Your task to perform on an android device: Show me popular videos on Youtube Image 0: 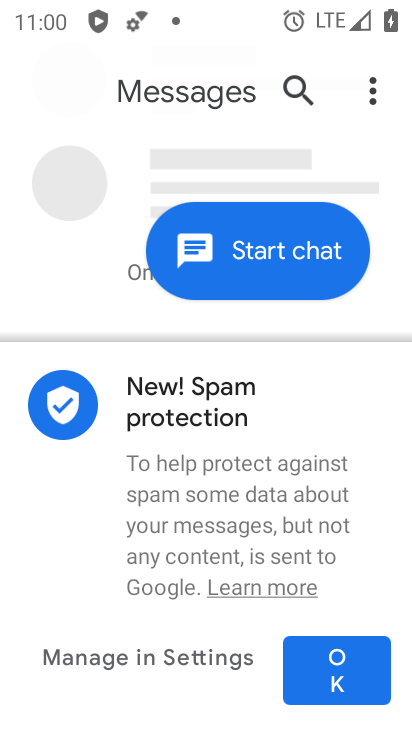
Step 0: press back button
Your task to perform on an android device: Show me popular videos on Youtube Image 1: 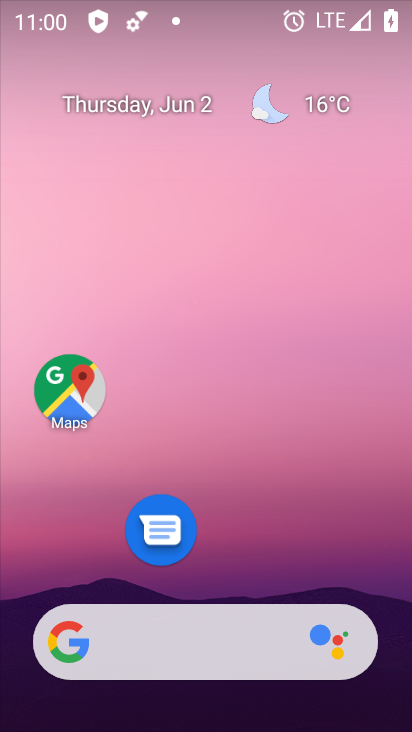
Step 1: drag from (253, 699) to (138, 40)
Your task to perform on an android device: Show me popular videos on Youtube Image 2: 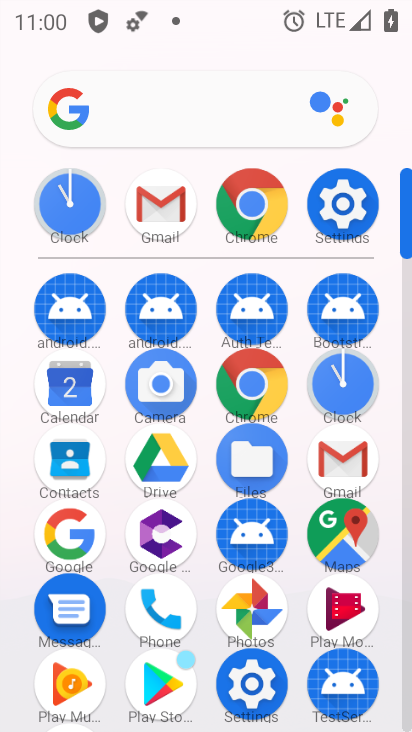
Step 2: drag from (282, 640) to (268, 284)
Your task to perform on an android device: Show me popular videos on Youtube Image 3: 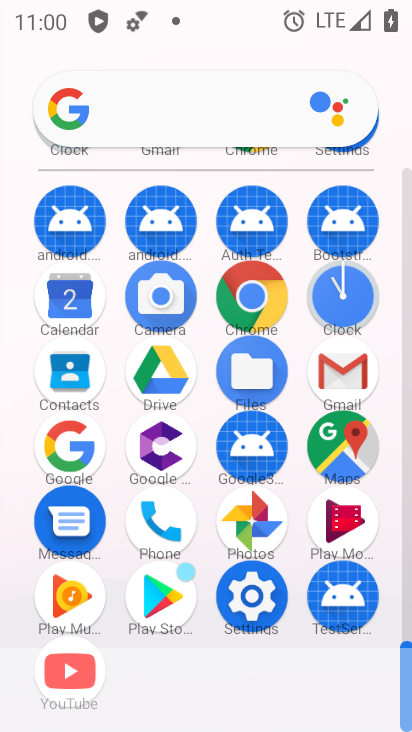
Step 3: drag from (287, 519) to (287, 202)
Your task to perform on an android device: Show me popular videos on Youtube Image 4: 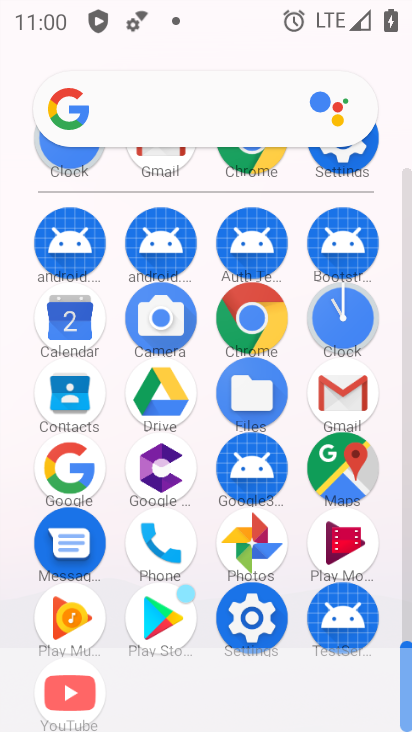
Step 4: drag from (98, 534) to (95, 252)
Your task to perform on an android device: Show me popular videos on Youtube Image 5: 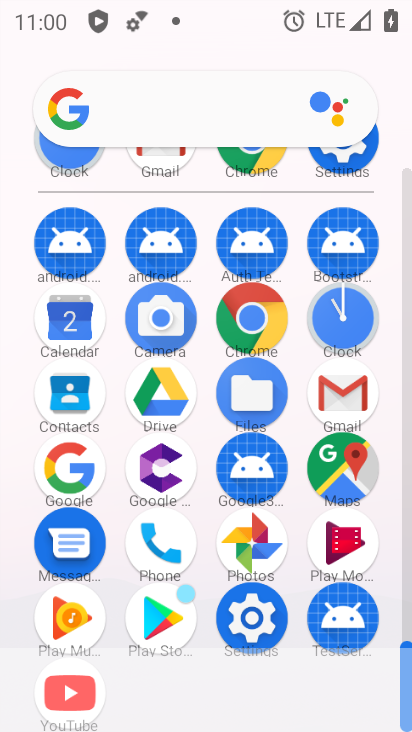
Step 5: drag from (114, 537) to (113, 256)
Your task to perform on an android device: Show me popular videos on Youtube Image 6: 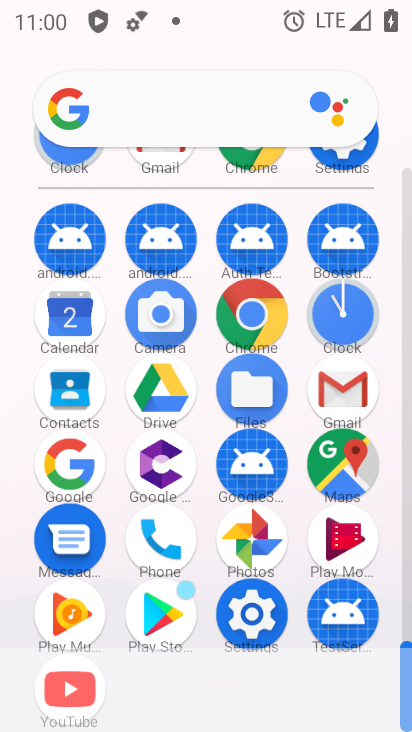
Step 6: drag from (128, 448) to (103, 151)
Your task to perform on an android device: Show me popular videos on Youtube Image 7: 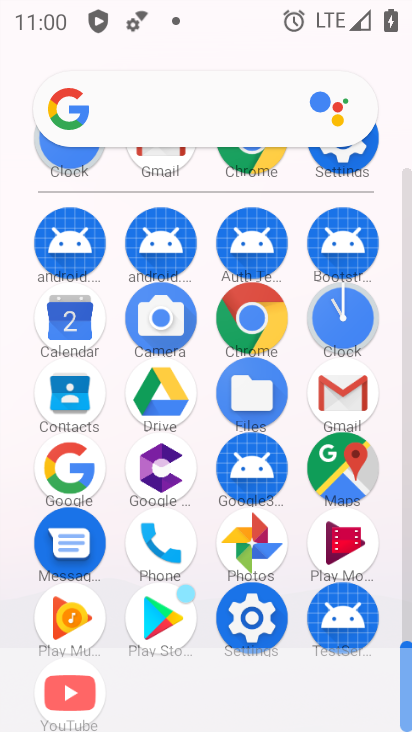
Step 7: click (62, 679)
Your task to perform on an android device: Show me popular videos on Youtube Image 8: 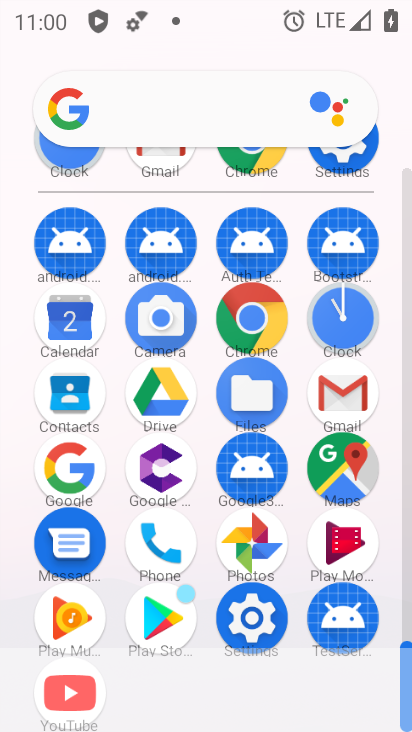
Step 8: click (62, 679)
Your task to perform on an android device: Show me popular videos on Youtube Image 9: 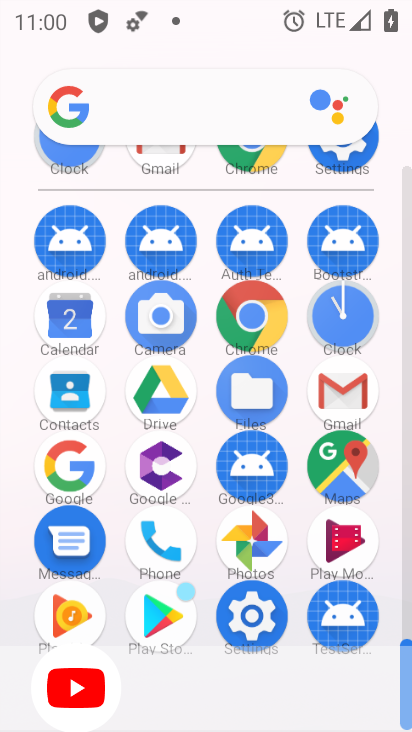
Step 9: click (62, 679)
Your task to perform on an android device: Show me popular videos on Youtube Image 10: 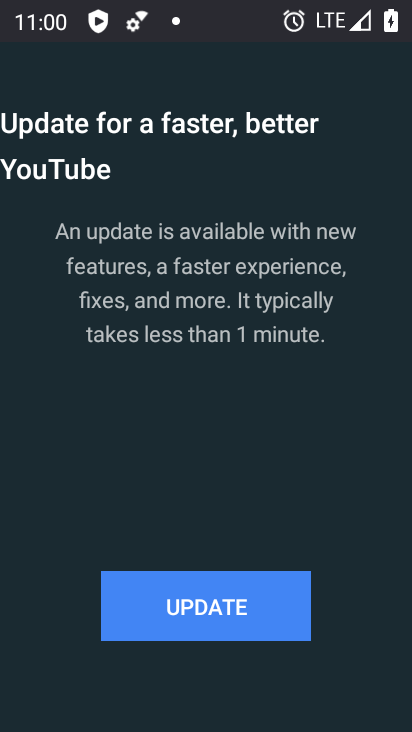
Step 10: click (217, 603)
Your task to perform on an android device: Show me popular videos on Youtube Image 11: 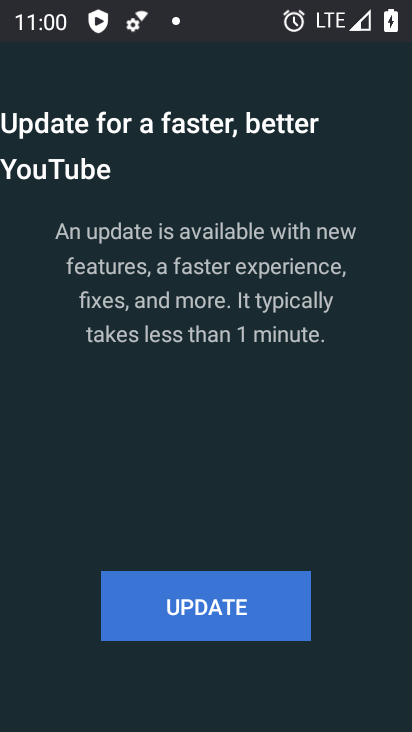
Step 11: click (218, 607)
Your task to perform on an android device: Show me popular videos on Youtube Image 12: 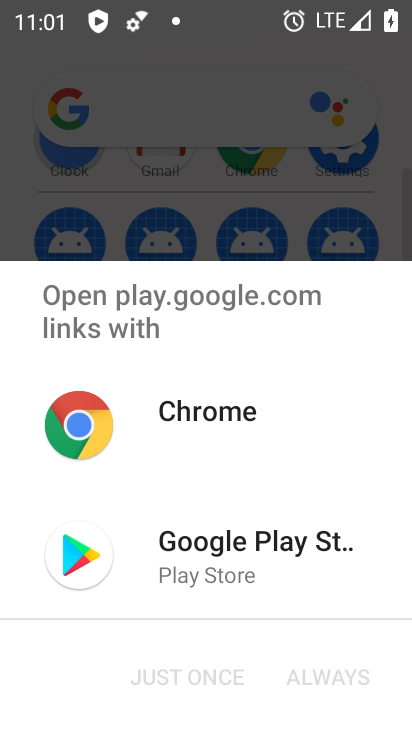
Step 12: click (192, 549)
Your task to perform on an android device: Show me popular videos on Youtube Image 13: 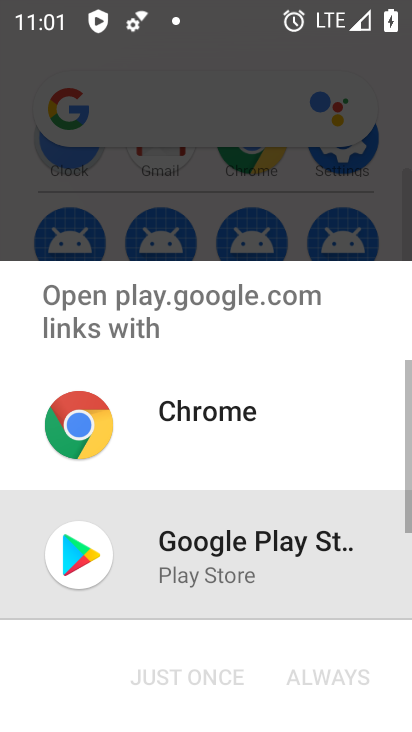
Step 13: click (194, 550)
Your task to perform on an android device: Show me popular videos on Youtube Image 14: 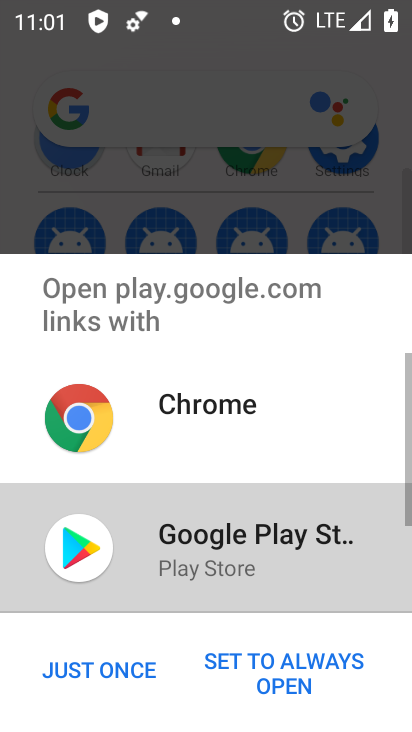
Step 14: click (194, 550)
Your task to perform on an android device: Show me popular videos on Youtube Image 15: 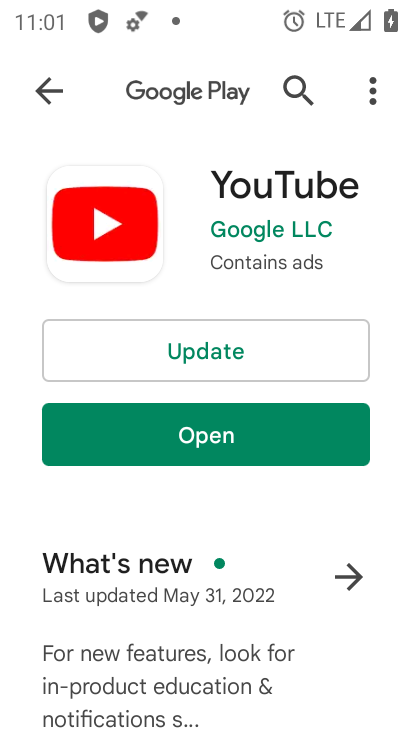
Step 15: click (183, 365)
Your task to perform on an android device: Show me popular videos on Youtube Image 16: 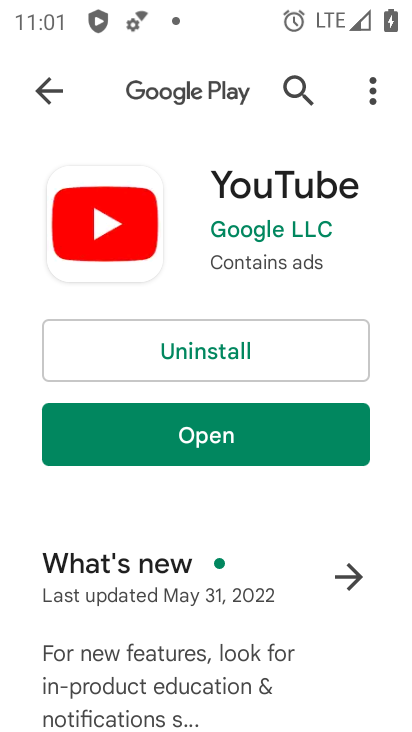
Step 16: click (219, 433)
Your task to perform on an android device: Show me popular videos on Youtube Image 17: 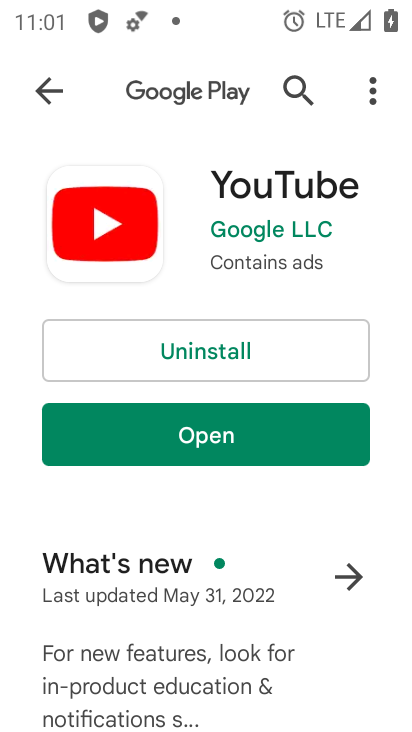
Step 17: click (220, 433)
Your task to perform on an android device: Show me popular videos on Youtube Image 18: 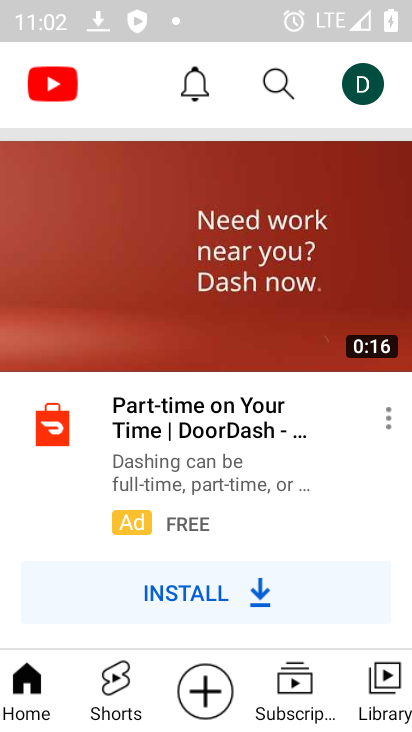
Step 18: task complete